Your task to perform on an android device: turn pop-ups on in chrome Image 0: 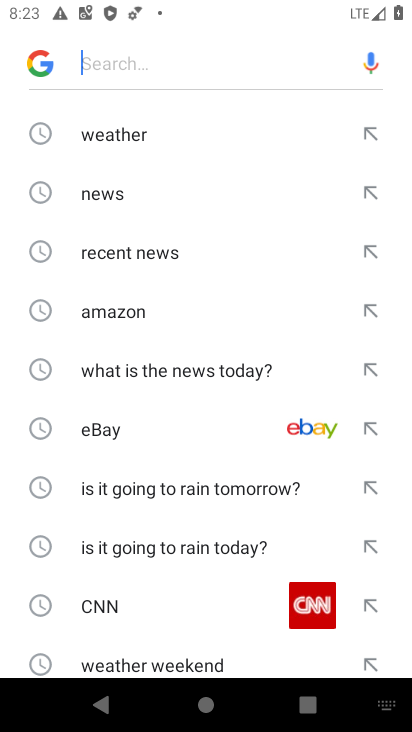
Step 0: press home button
Your task to perform on an android device: turn pop-ups on in chrome Image 1: 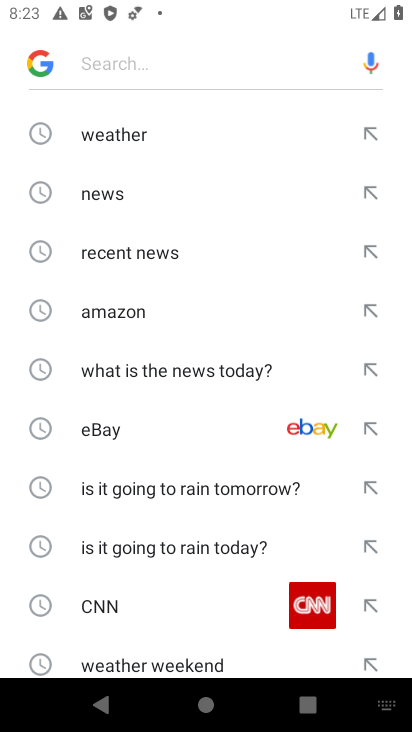
Step 1: press home button
Your task to perform on an android device: turn pop-ups on in chrome Image 2: 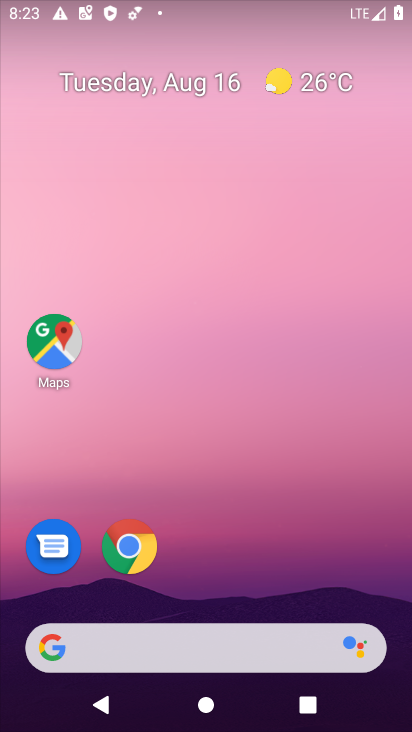
Step 2: click (129, 541)
Your task to perform on an android device: turn pop-ups on in chrome Image 3: 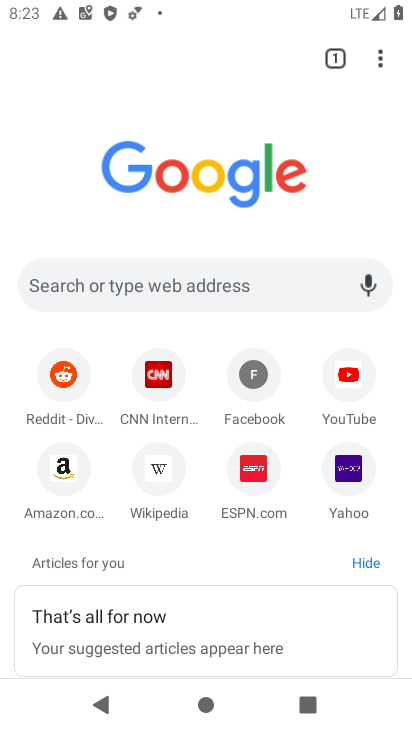
Step 3: click (375, 56)
Your task to perform on an android device: turn pop-ups on in chrome Image 4: 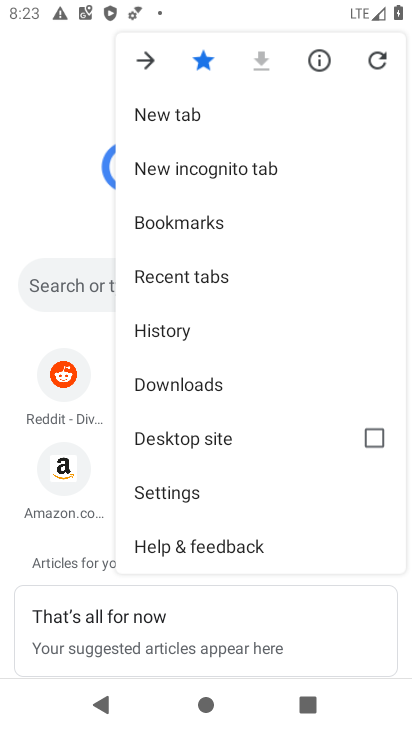
Step 4: click (205, 485)
Your task to perform on an android device: turn pop-ups on in chrome Image 5: 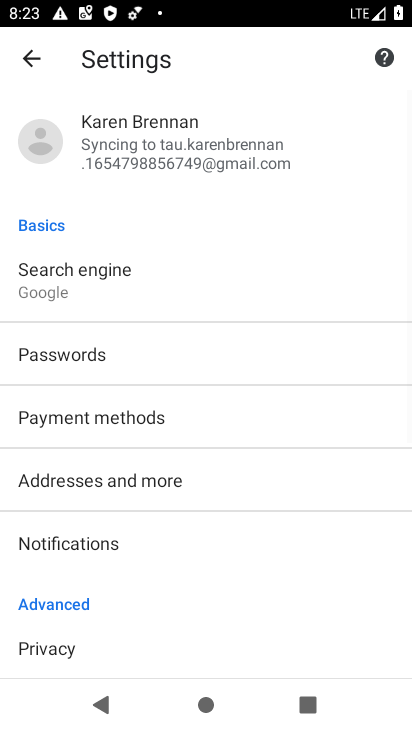
Step 5: drag from (222, 552) to (211, 145)
Your task to perform on an android device: turn pop-ups on in chrome Image 6: 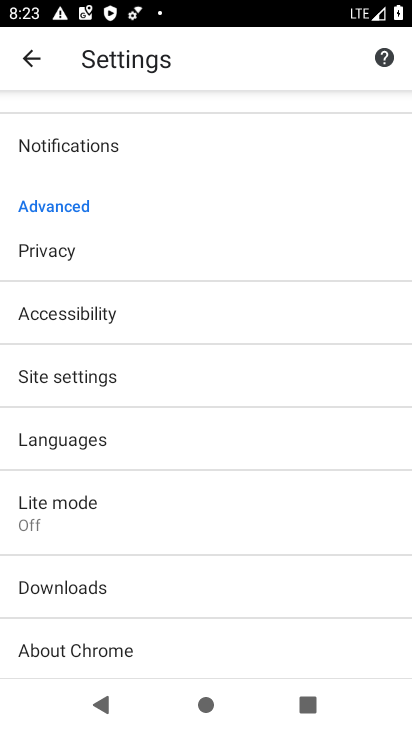
Step 6: click (107, 369)
Your task to perform on an android device: turn pop-ups on in chrome Image 7: 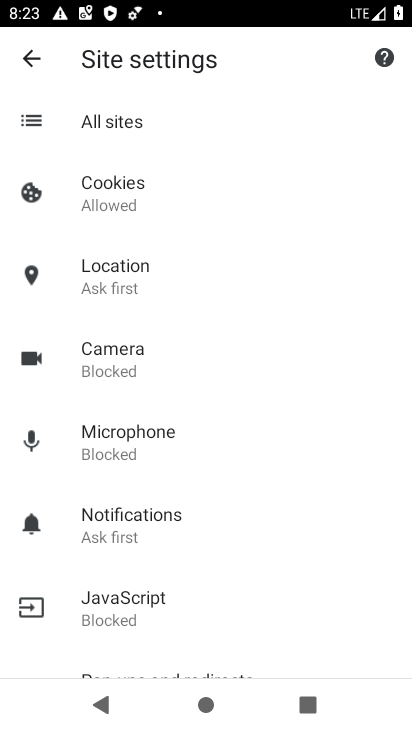
Step 7: drag from (229, 442) to (210, 119)
Your task to perform on an android device: turn pop-ups on in chrome Image 8: 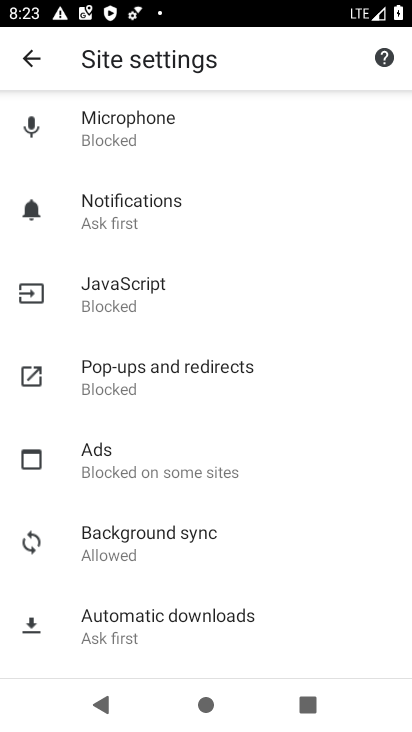
Step 8: click (202, 366)
Your task to perform on an android device: turn pop-ups on in chrome Image 9: 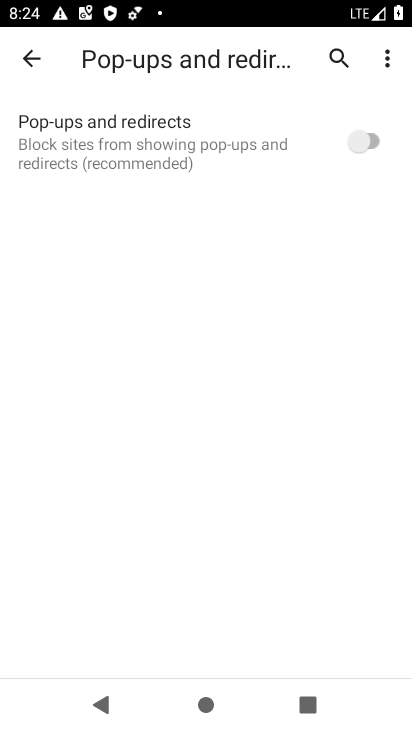
Step 9: click (372, 135)
Your task to perform on an android device: turn pop-ups on in chrome Image 10: 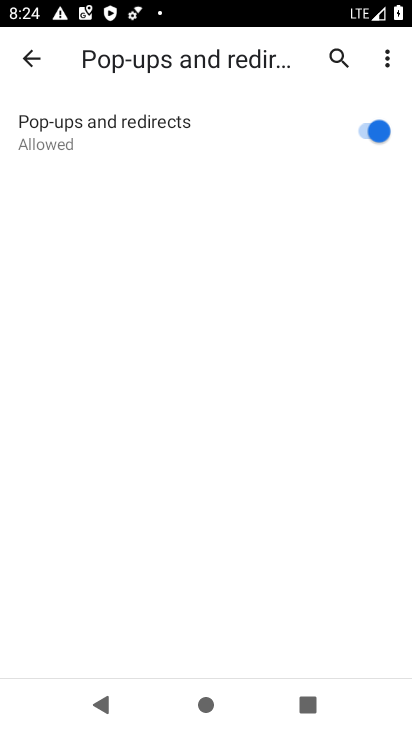
Step 10: task complete